Your task to perform on an android device: uninstall "Google Duo" Image 0: 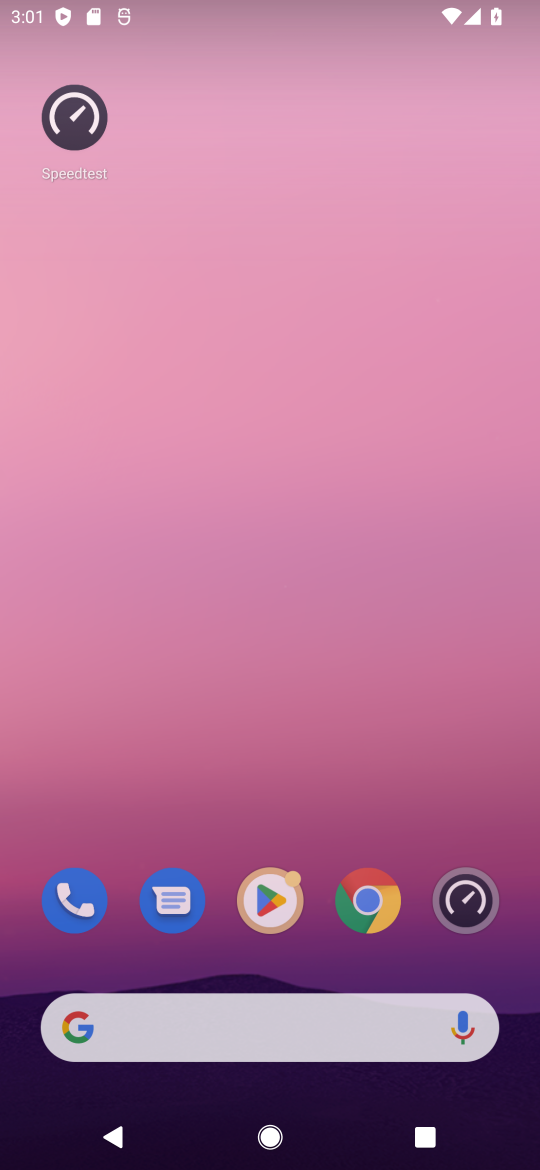
Step 0: press home button
Your task to perform on an android device: uninstall "Google Duo" Image 1: 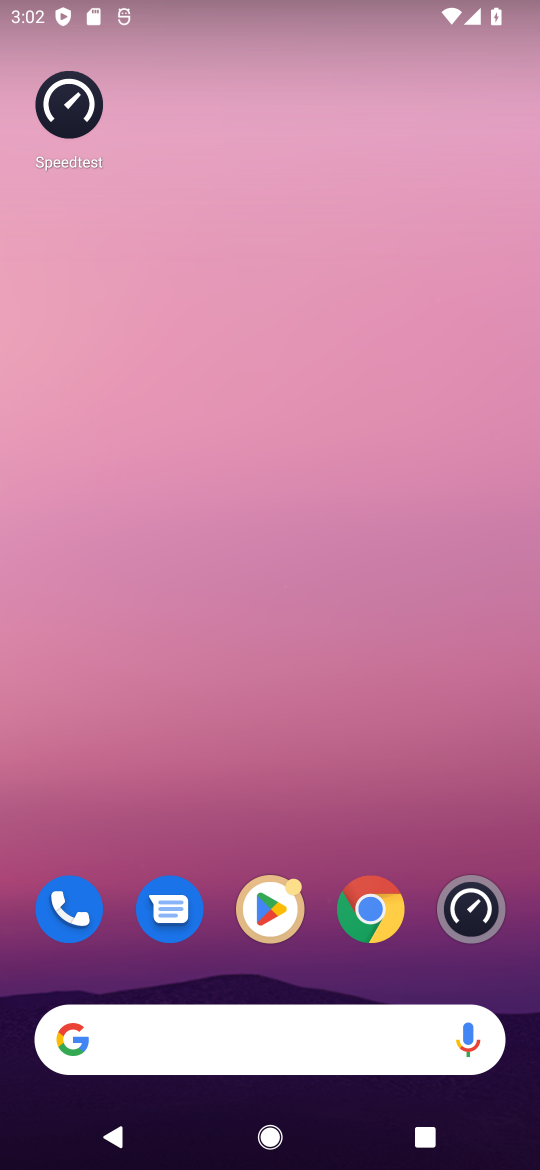
Step 1: click (265, 901)
Your task to perform on an android device: uninstall "Google Duo" Image 2: 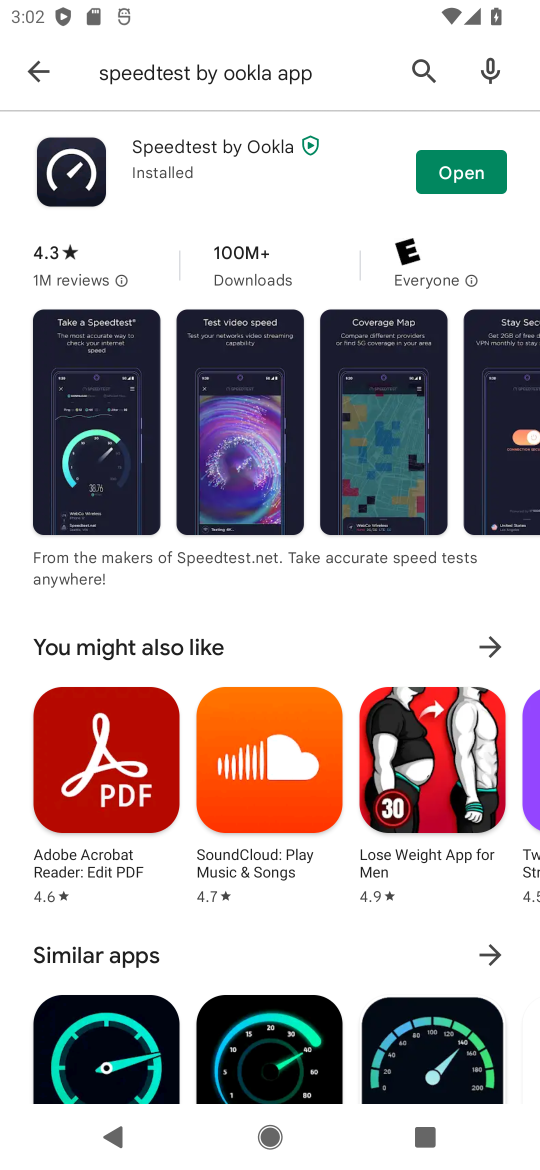
Step 2: click (416, 71)
Your task to perform on an android device: uninstall "Google Duo" Image 3: 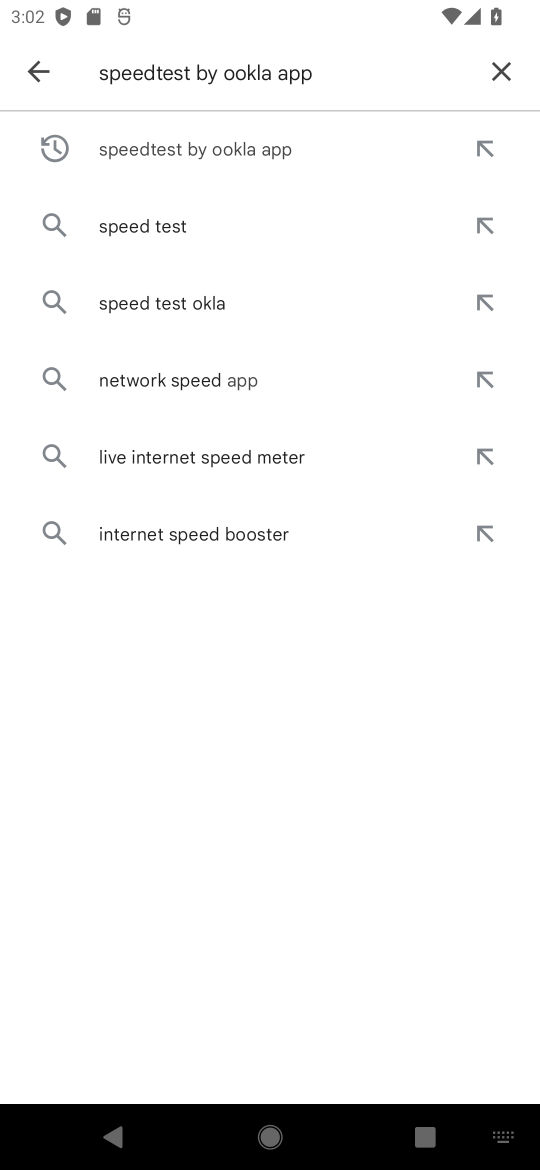
Step 3: click (502, 80)
Your task to perform on an android device: uninstall "Google Duo" Image 4: 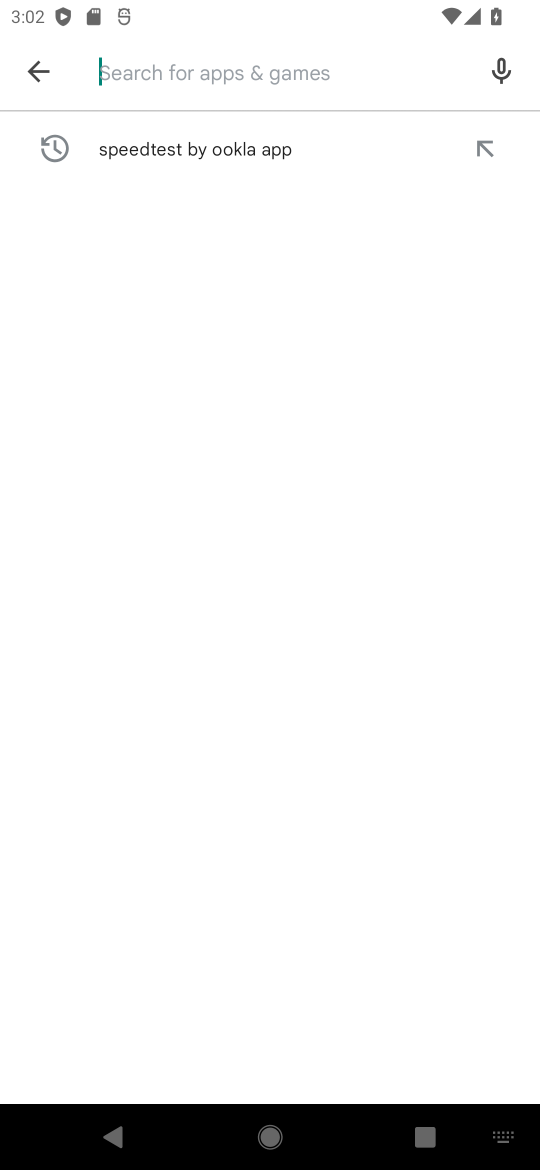
Step 4: type "Google Duo"
Your task to perform on an android device: uninstall "Google Duo" Image 5: 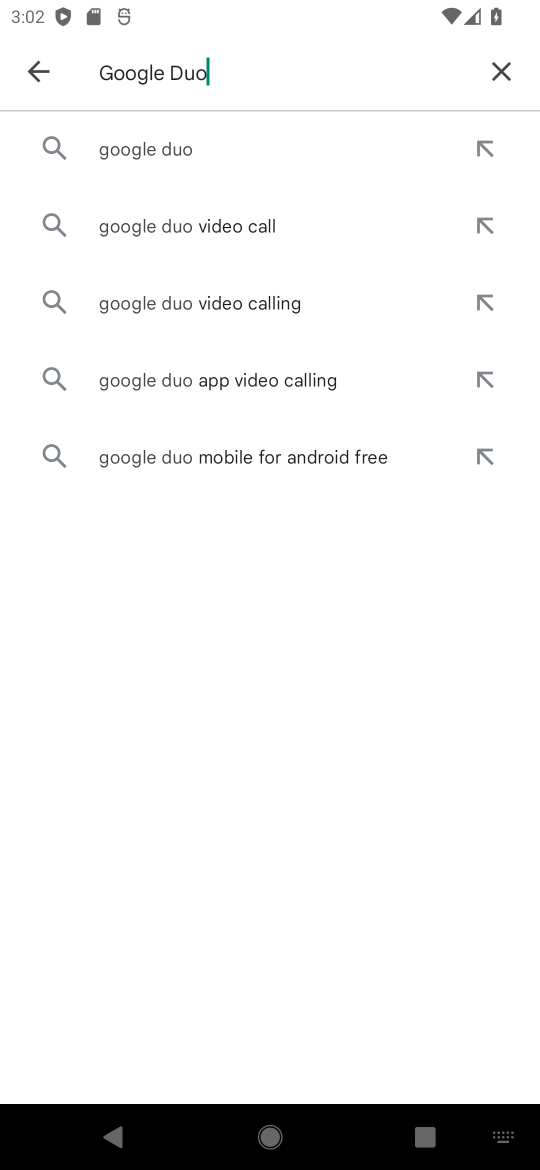
Step 5: click (183, 146)
Your task to perform on an android device: uninstall "Google Duo" Image 6: 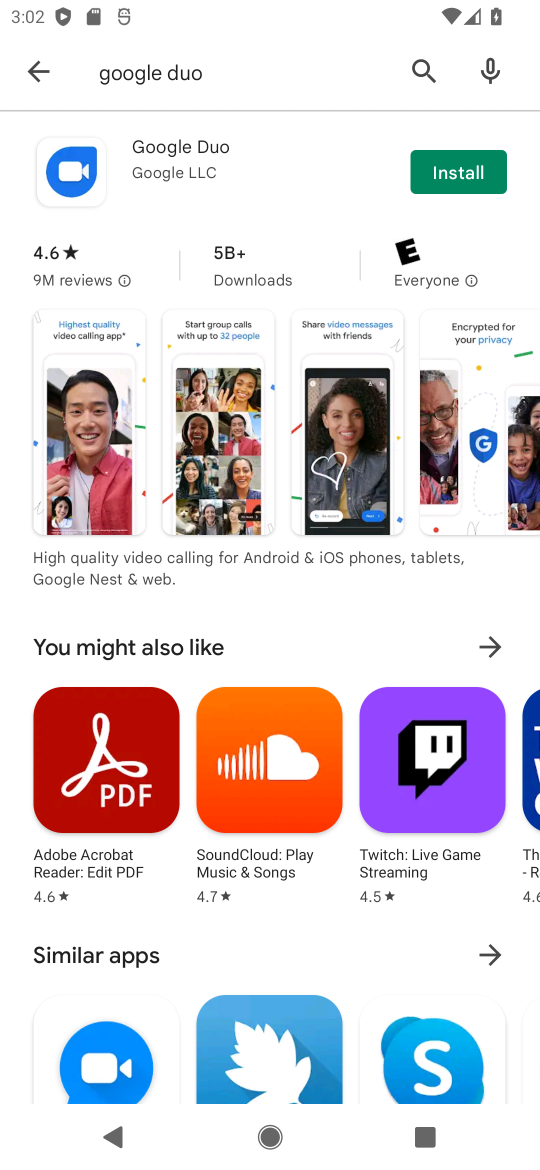
Step 6: task complete